Your task to perform on an android device: Go to Google Image 0: 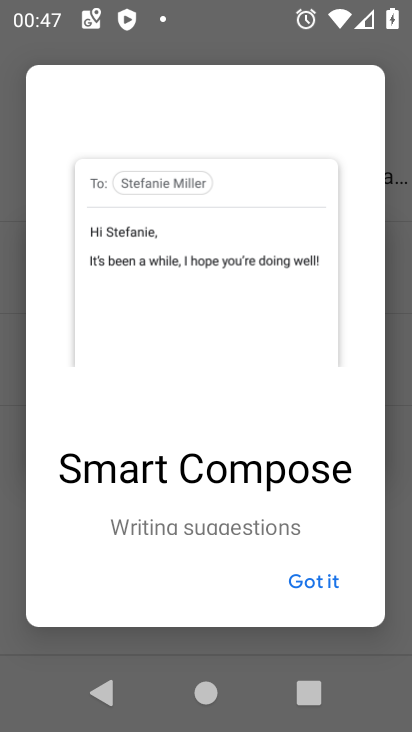
Step 0: press home button
Your task to perform on an android device: Go to Google Image 1: 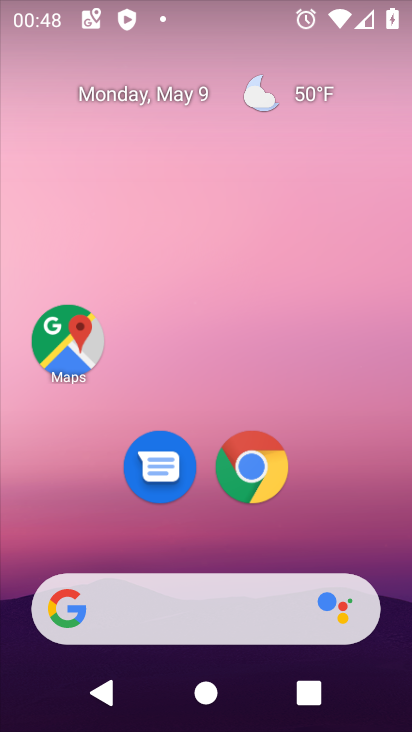
Step 1: drag from (202, 548) to (184, 35)
Your task to perform on an android device: Go to Google Image 2: 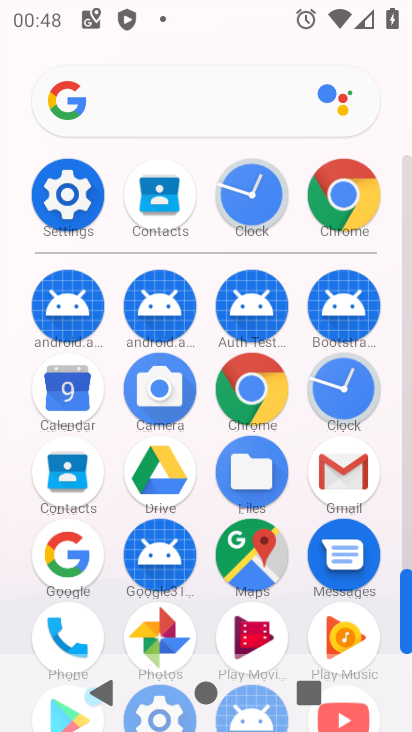
Step 2: click (65, 544)
Your task to perform on an android device: Go to Google Image 3: 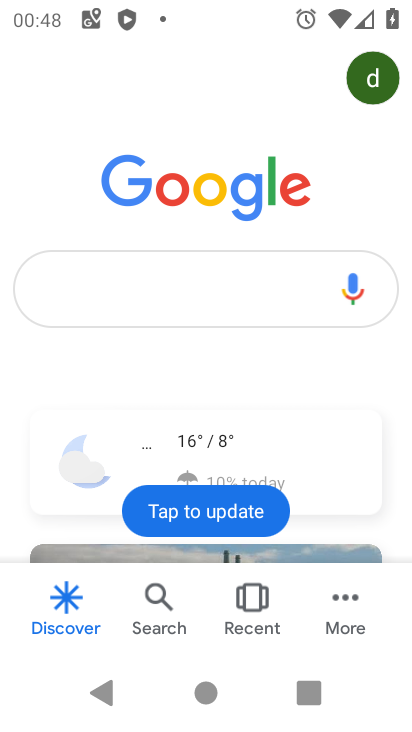
Step 3: task complete